Your task to perform on an android device: turn on the 12-hour format for clock Image 0: 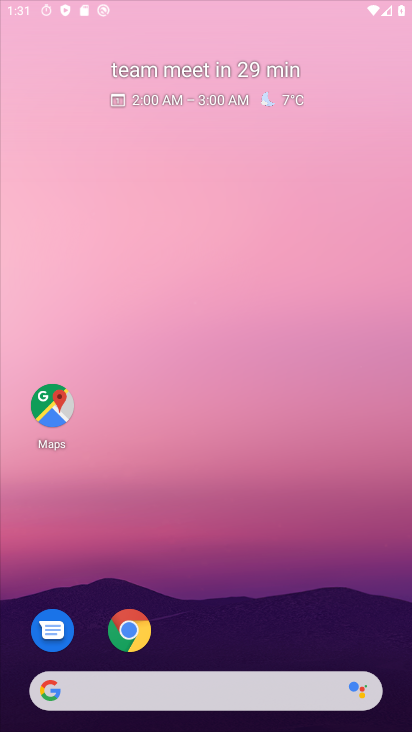
Step 0: drag from (252, 577) to (237, 198)
Your task to perform on an android device: turn on the 12-hour format for clock Image 1: 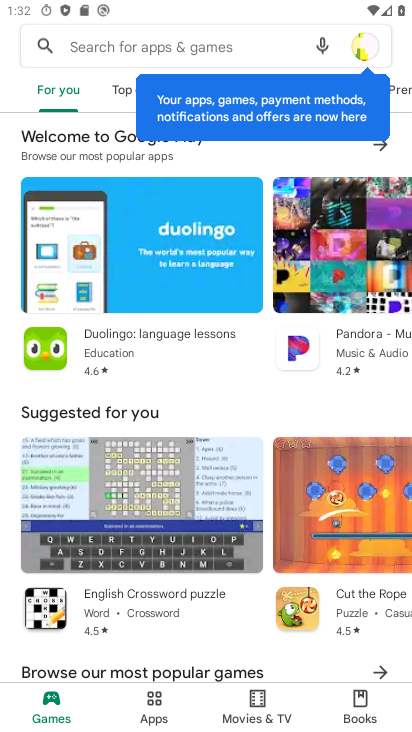
Step 1: press home button
Your task to perform on an android device: turn on the 12-hour format for clock Image 2: 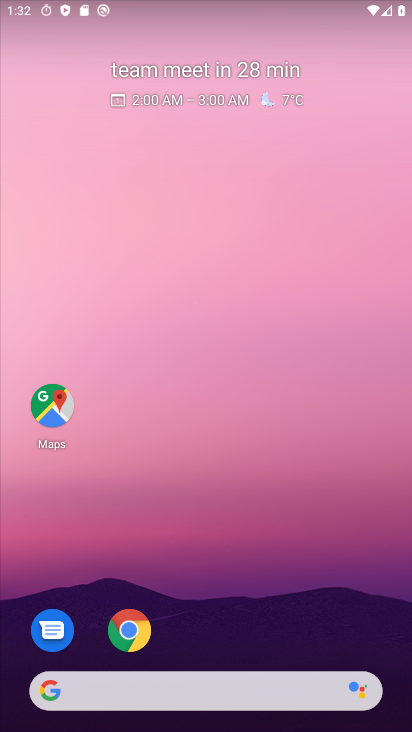
Step 2: drag from (215, 669) to (193, 47)
Your task to perform on an android device: turn on the 12-hour format for clock Image 3: 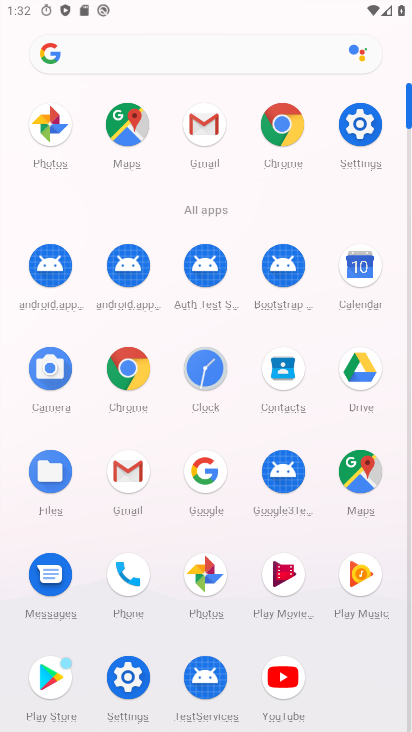
Step 3: click (350, 149)
Your task to perform on an android device: turn on the 12-hour format for clock Image 4: 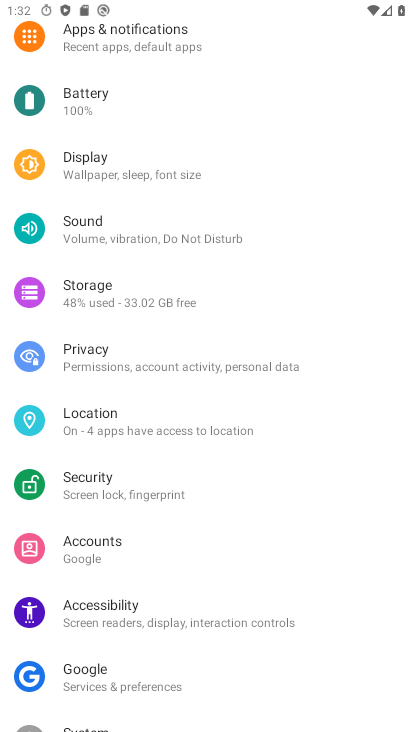
Step 4: drag from (228, 578) to (164, 34)
Your task to perform on an android device: turn on the 12-hour format for clock Image 5: 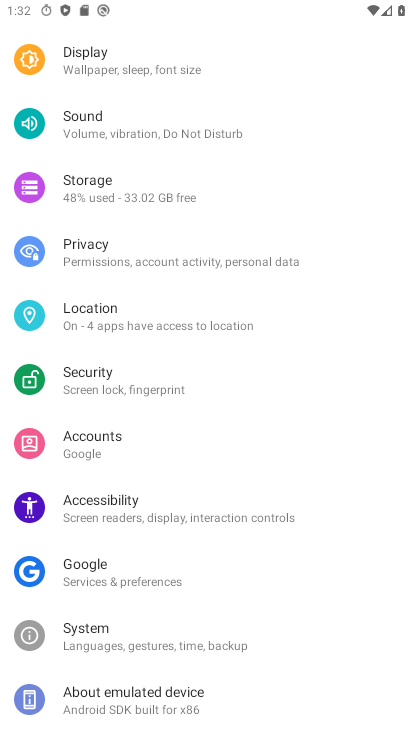
Step 5: click (160, 633)
Your task to perform on an android device: turn on the 12-hour format for clock Image 6: 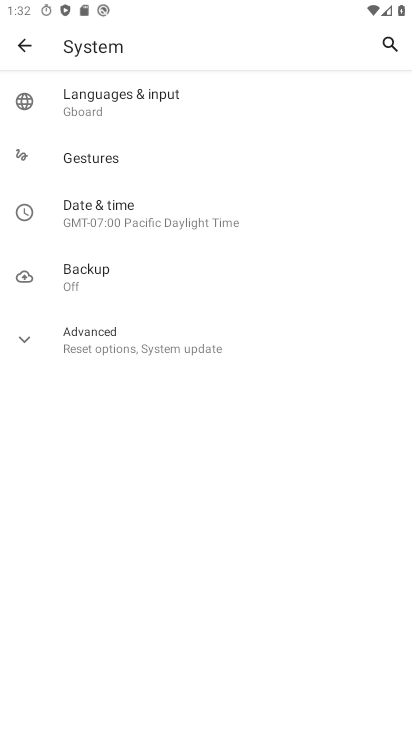
Step 6: click (121, 218)
Your task to perform on an android device: turn on the 12-hour format for clock Image 7: 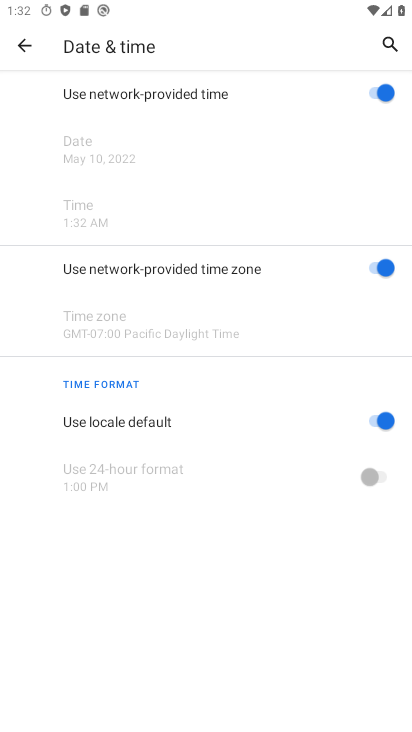
Step 7: task complete